Your task to perform on an android device: find snoozed emails in the gmail app Image 0: 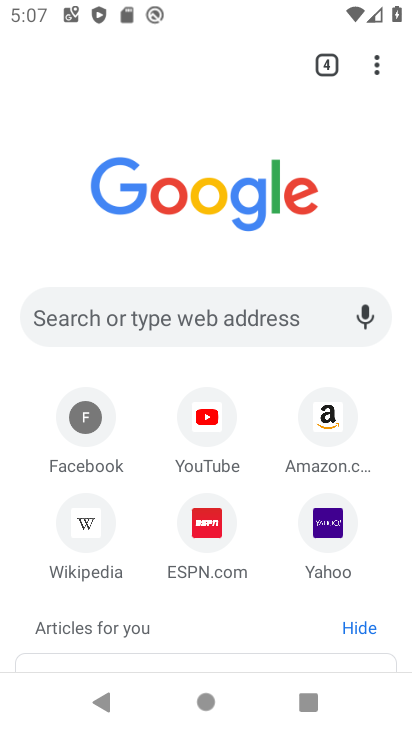
Step 0: press home button
Your task to perform on an android device: find snoozed emails in the gmail app Image 1: 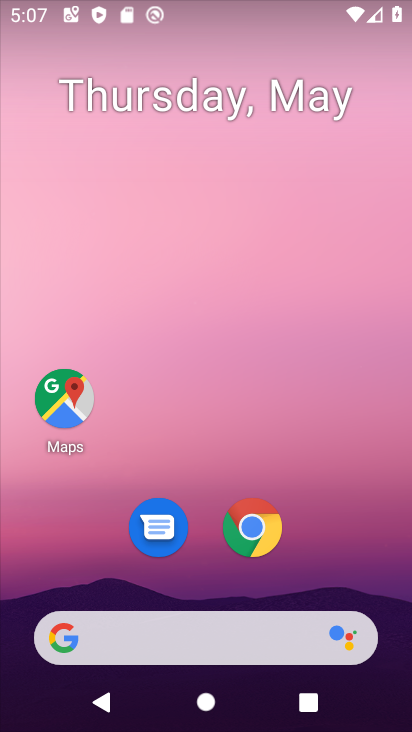
Step 1: drag from (331, 526) to (302, 11)
Your task to perform on an android device: find snoozed emails in the gmail app Image 2: 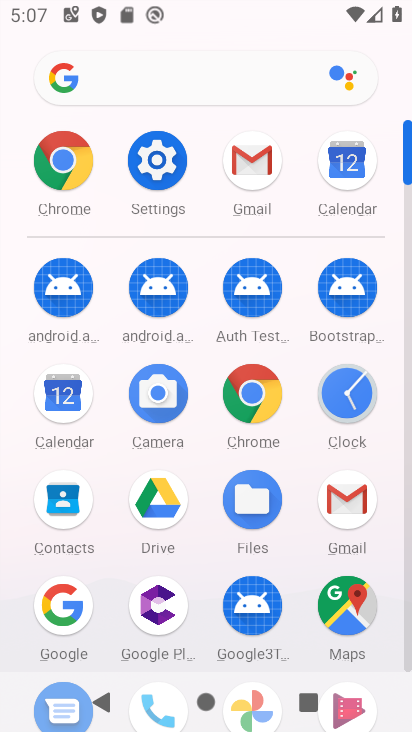
Step 2: click (253, 165)
Your task to perform on an android device: find snoozed emails in the gmail app Image 3: 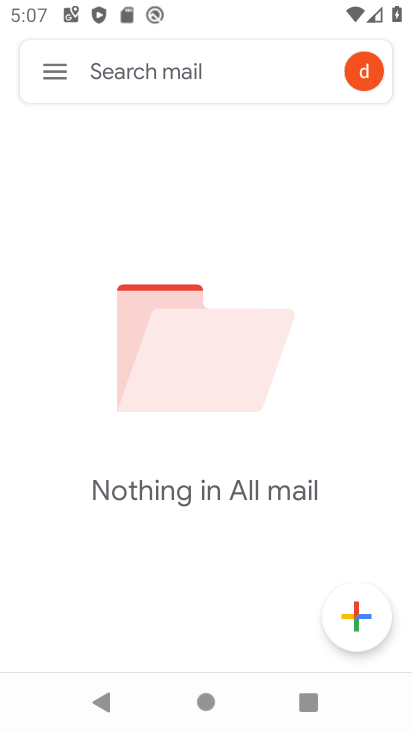
Step 3: click (73, 72)
Your task to perform on an android device: find snoozed emails in the gmail app Image 4: 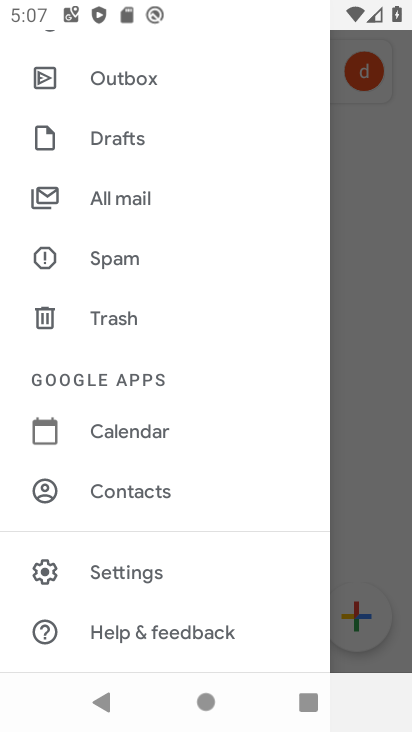
Step 4: drag from (191, 577) to (204, 146)
Your task to perform on an android device: find snoozed emails in the gmail app Image 5: 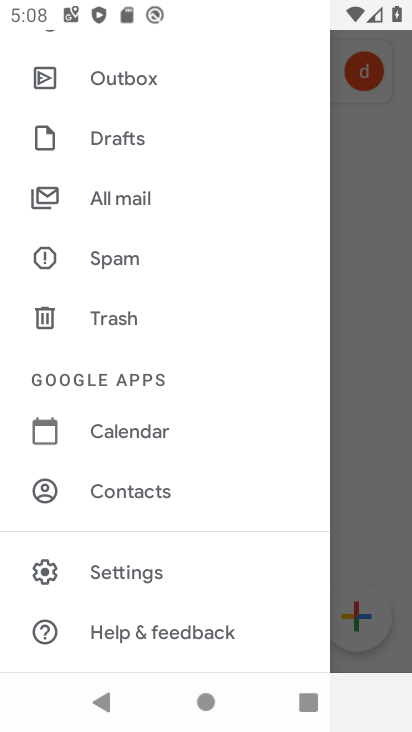
Step 5: drag from (139, 637) to (140, 142)
Your task to perform on an android device: find snoozed emails in the gmail app Image 6: 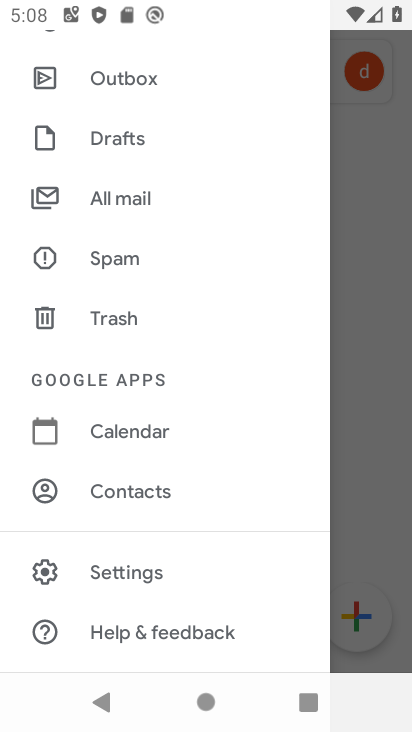
Step 6: drag from (215, 307) to (171, 612)
Your task to perform on an android device: find snoozed emails in the gmail app Image 7: 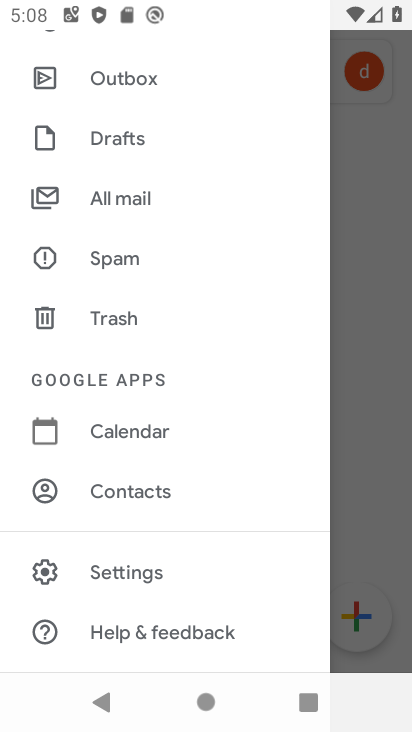
Step 7: drag from (153, 309) to (206, 570)
Your task to perform on an android device: find snoozed emails in the gmail app Image 8: 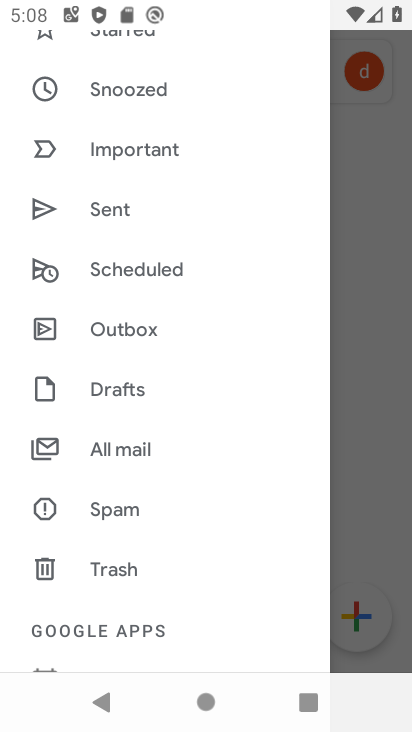
Step 8: drag from (178, 258) to (212, 592)
Your task to perform on an android device: find snoozed emails in the gmail app Image 9: 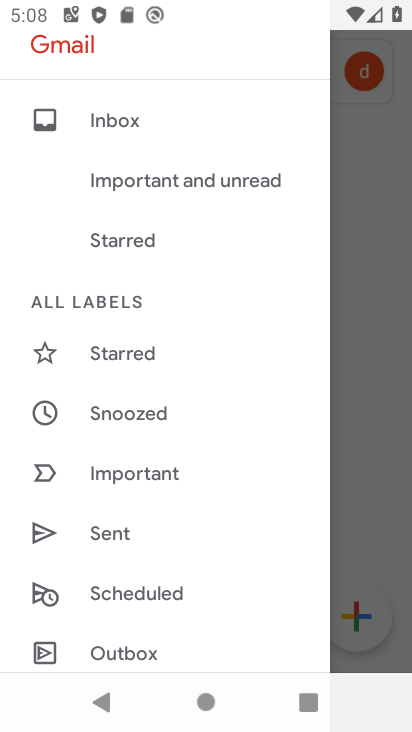
Step 9: click (124, 420)
Your task to perform on an android device: find snoozed emails in the gmail app Image 10: 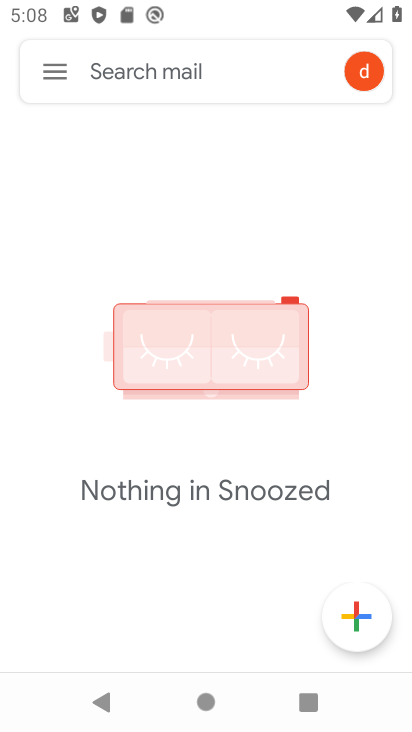
Step 10: task complete